Your task to perform on an android device: Turn on the flashlight Image 0: 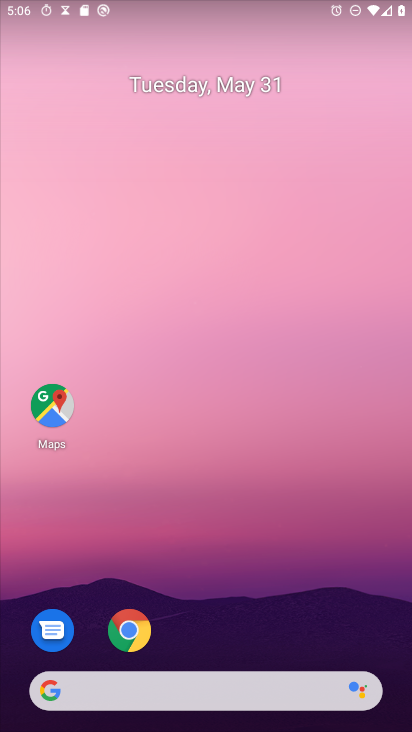
Step 0: drag from (283, 684) to (129, 1)
Your task to perform on an android device: Turn on the flashlight Image 1: 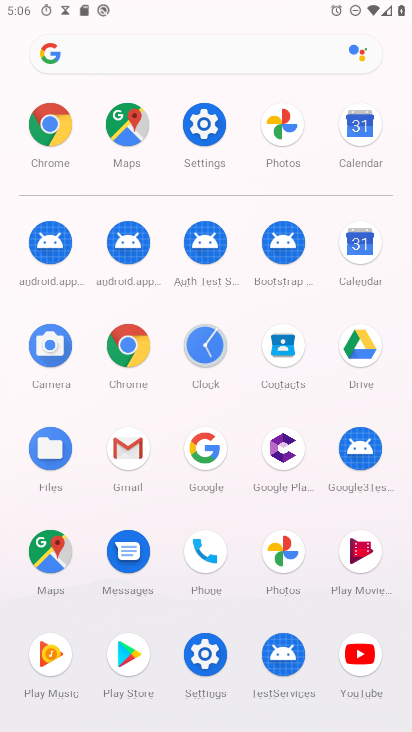
Step 1: click (199, 125)
Your task to perform on an android device: Turn on the flashlight Image 2: 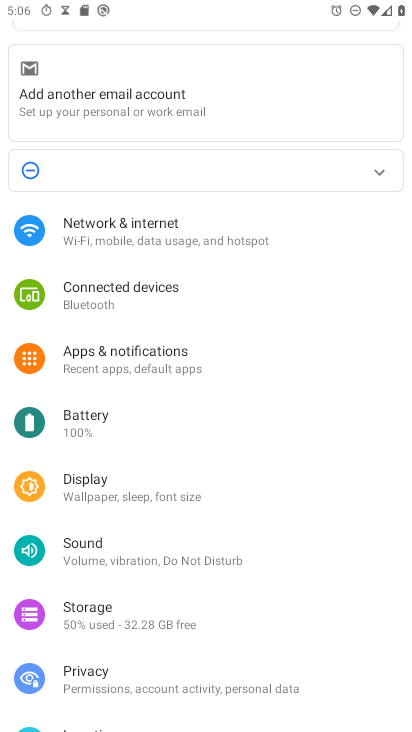
Step 2: click (229, 15)
Your task to perform on an android device: Turn on the flashlight Image 3: 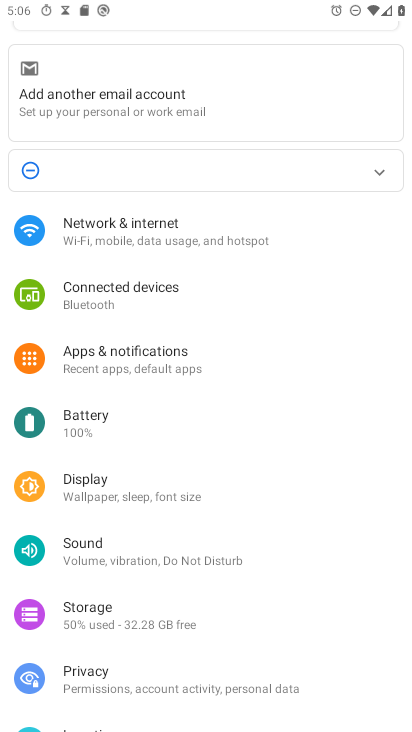
Step 3: task complete